Your task to perform on an android device: Toggle the flashlight Image 0: 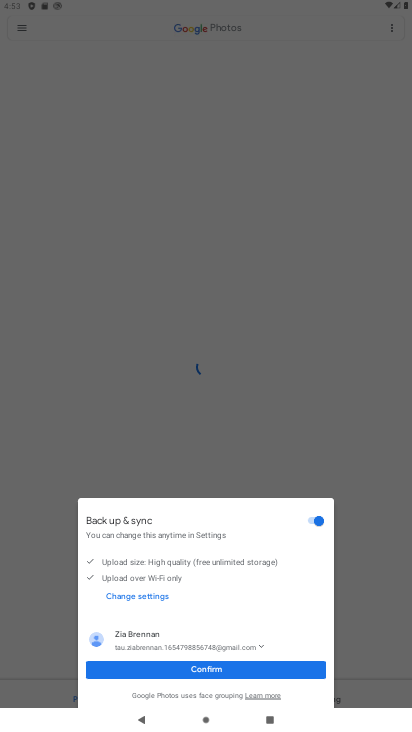
Step 0: press back button
Your task to perform on an android device: Toggle the flashlight Image 1: 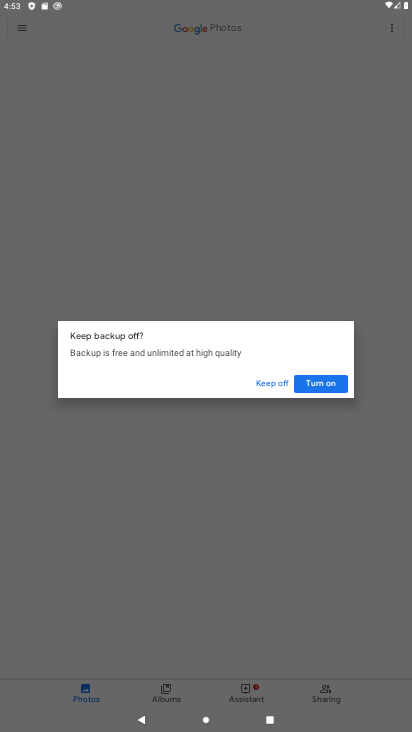
Step 1: press home button
Your task to perform on an android device: Toggle the flashlight Image 2: 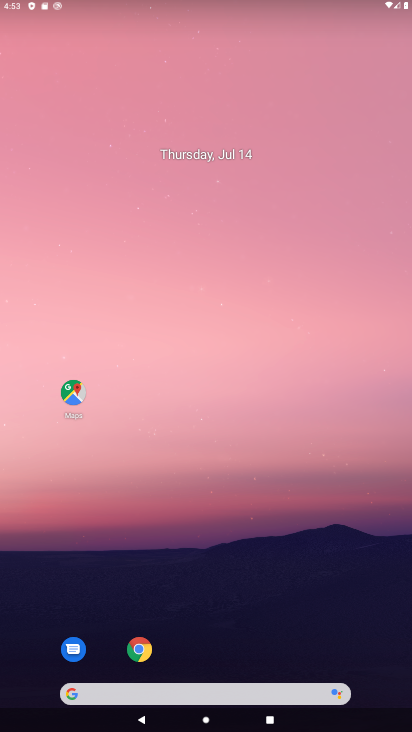
Step 2: drag from (200, 614) to (264, 8)
Your task to perform on an android device: Toggle the flashlight Image 3: 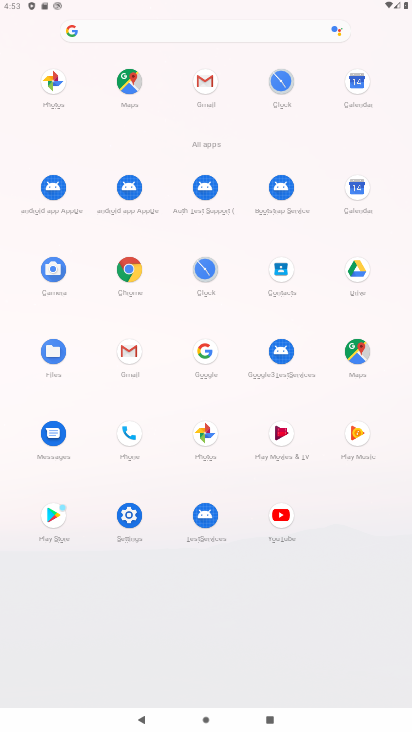
Step 3: click (132, 525)
Your task to perform on an android device: Toggle the flashlight Image 4: 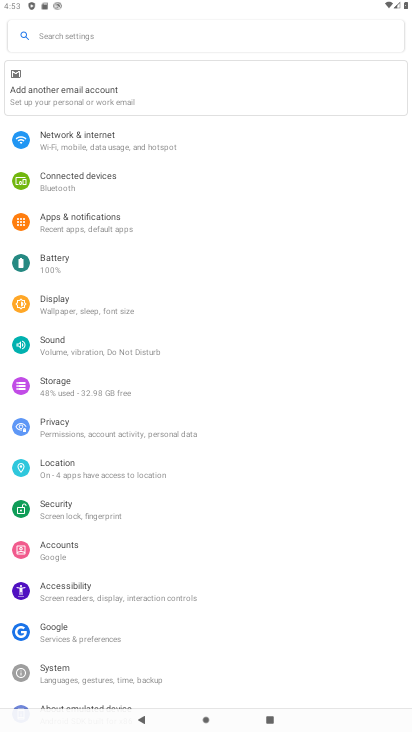
Step 4: click (81, 37)
Your task to perform on an android device: Toggle the flashlight Image 5: 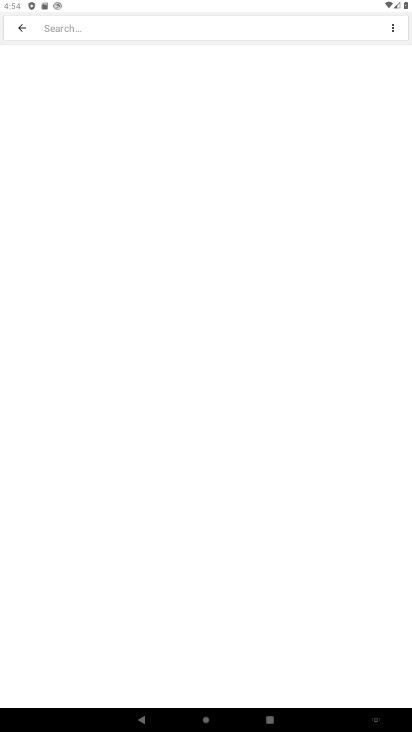
Step 5: type "flashlight"
Your task to perform on an android device: Toggle the flashlight Image 6: 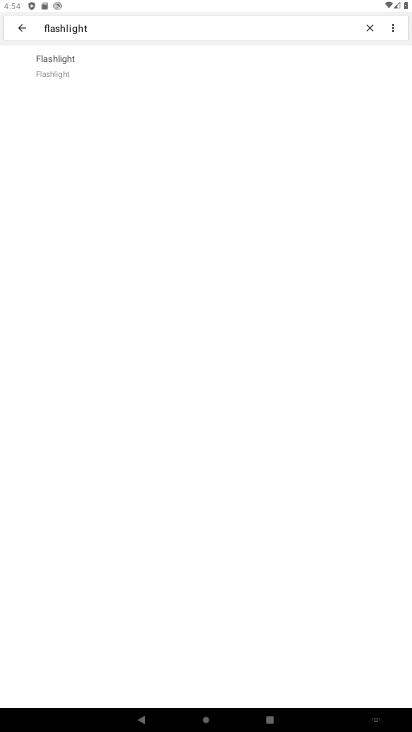
Step 6: click (58, 57)
Your task to perform on an android device: Toggle the flashlight Image 7: 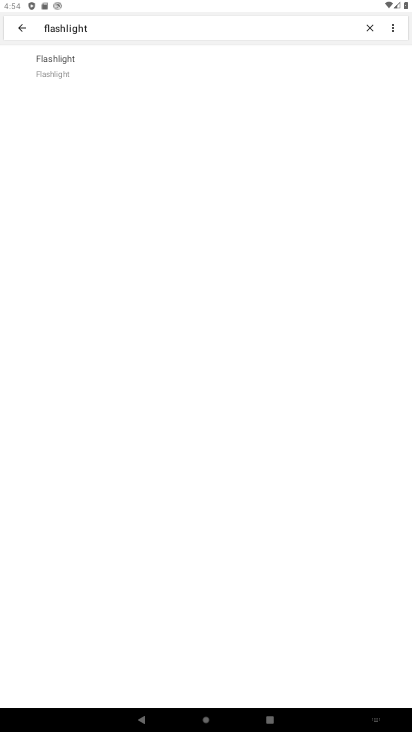
Step 7: task complete